Your task to perform on an android device: turn on data saver in the chrome app Image 0: 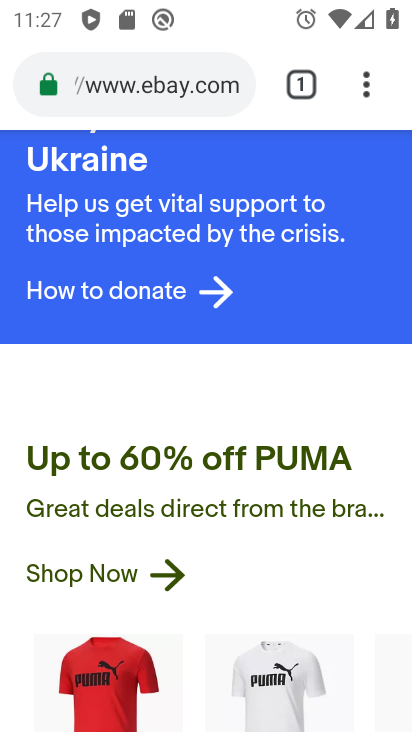
Step 0: press home button
Your task to perform on an android device: turn on data saver in the chrome app Image 1: 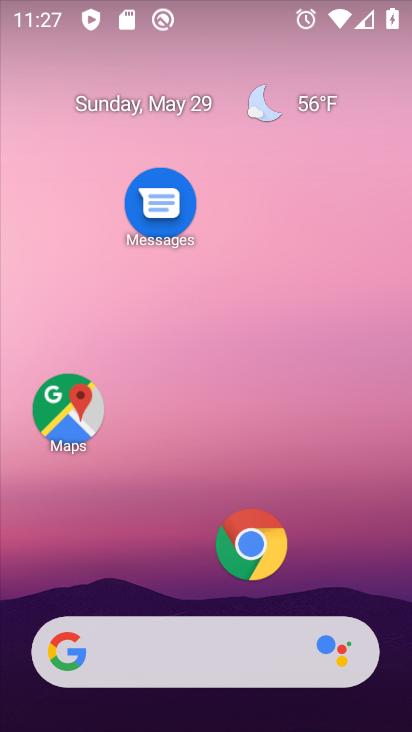
Step 1: click (257, 540)
Your task to perform on an android device: turn on data saver in the chrome app Image 2: 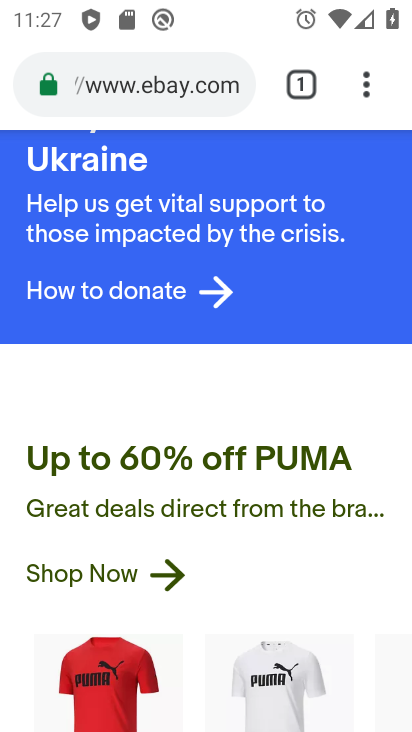
Step 2: click (369, 75)
Your task to perform on an android device: turn on data saver in the chrome app Image 3: 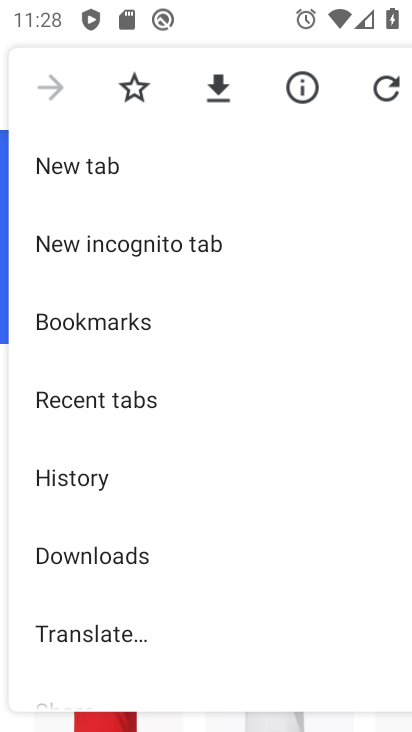
Step 3: drag from (191, 620) to (189, 145)
Your task to perform on an android device: turn on data saver in the chrome app Image 4: 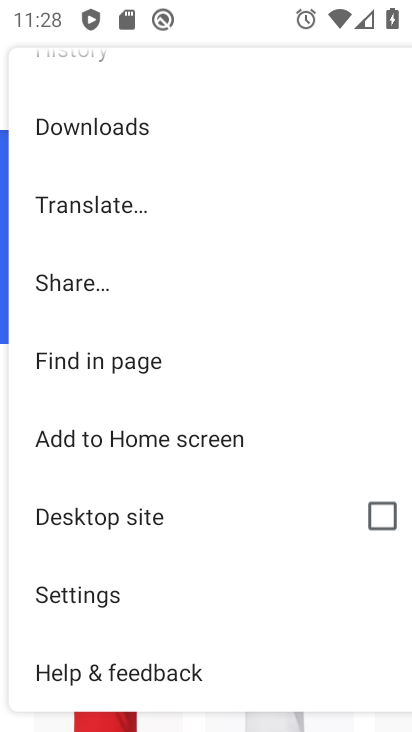
Step 4: click (120, 590)
Your task to perform on an android device: turn on data saver in the chrome app Image 5: 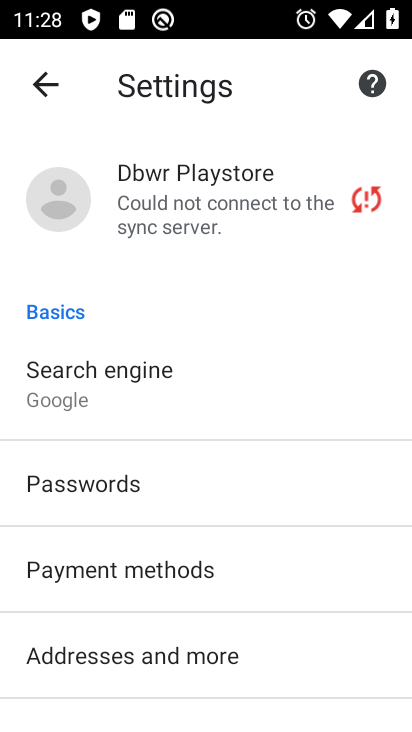
Step 5: drag from (262, 662) to (324, 284)
Your task to perform on an android device: turn on data saver in the chrome app Image 6: 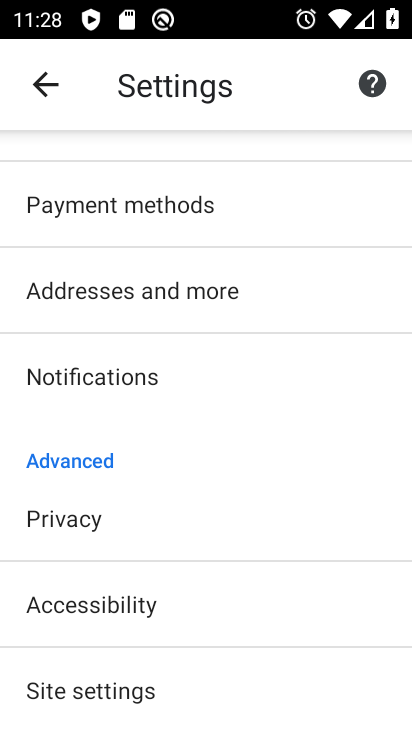
Step 6: drag from (202, 666) to (212, 263)
Your task to perform on an android device: turn on data saver in the chrome app Image 7: 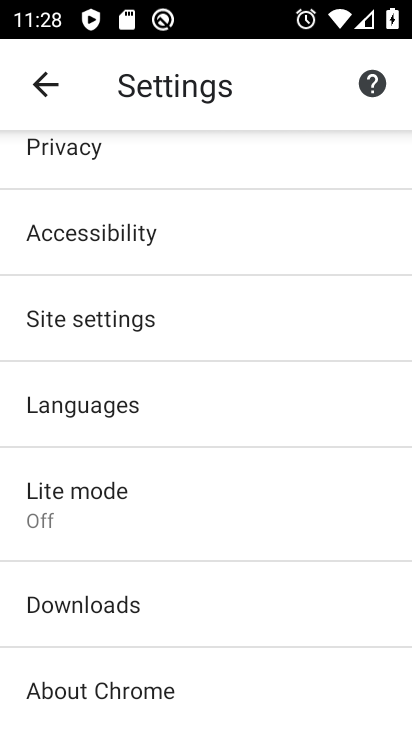
Step 7: click (148, 504)
Your task to perform on an android device: turn on data saver in the chrome app Image 8: 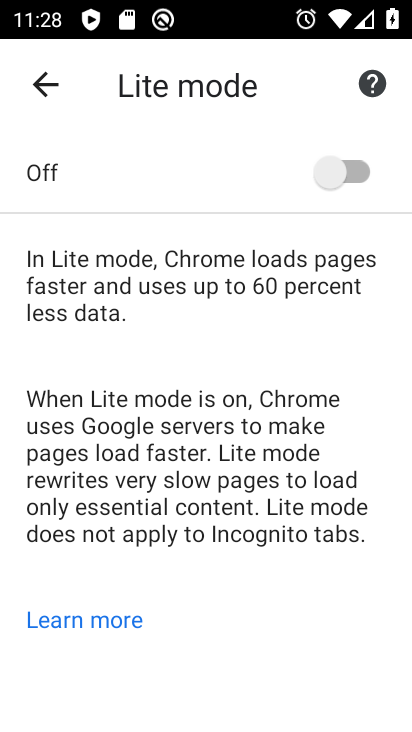
Step 8: click (344, 170)
Your task to perform on an android device: turn on data saver in the chrome app Image 9: 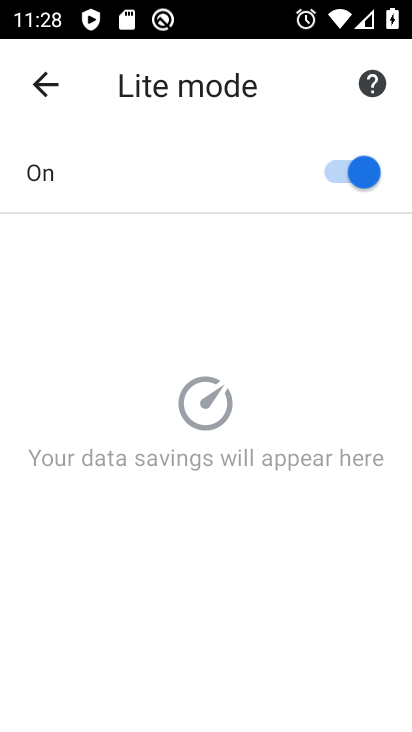
Step 9: task complete